Your task to perform on an android device: open a bookmark in the chrome app Image 0: 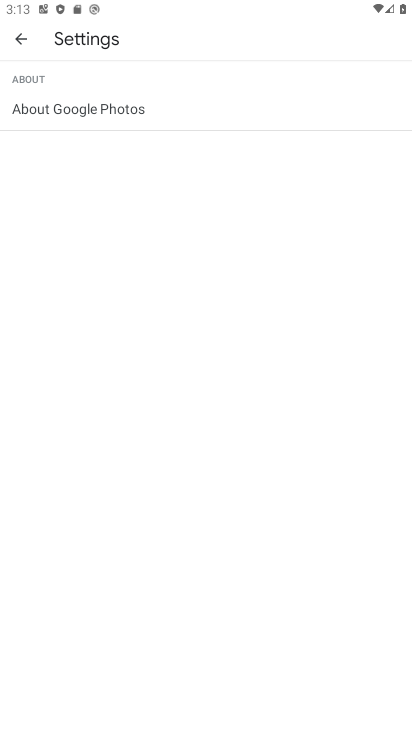
Step 0: drag from (255, 622) to (276, 213)
Your task to perform on an android device: open a bookmark in the chrome app Image 1: 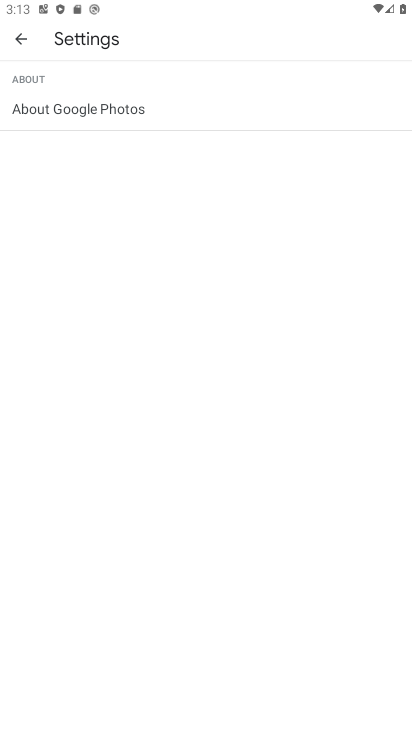
Step 1: press home button
Your task to perform on an android device: open a bookmark in the chrome app Image 2: 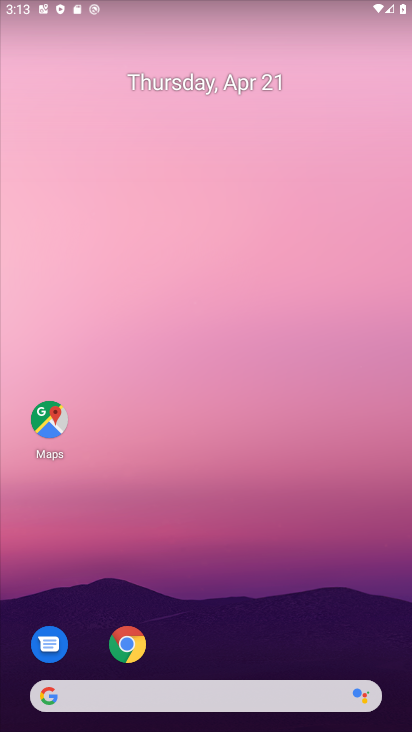
Step 2: click (105, 626)
Your task to perform on an android device: open a bookmark in the chrome app Image 3: 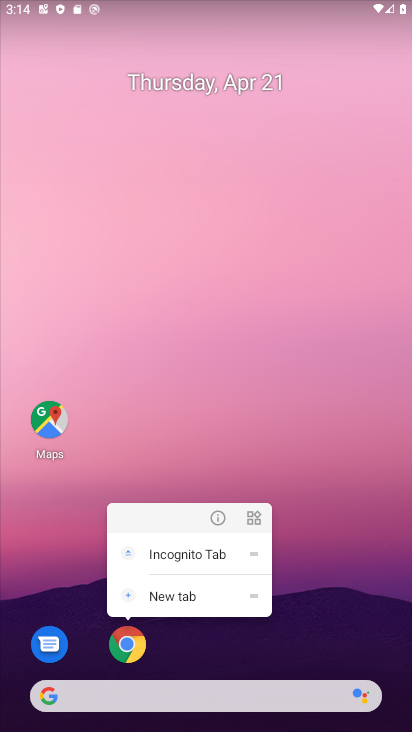
Step 3: click (130, 653)
Your task to perform on an android device: open a bookmark in the chrome app Image 4: 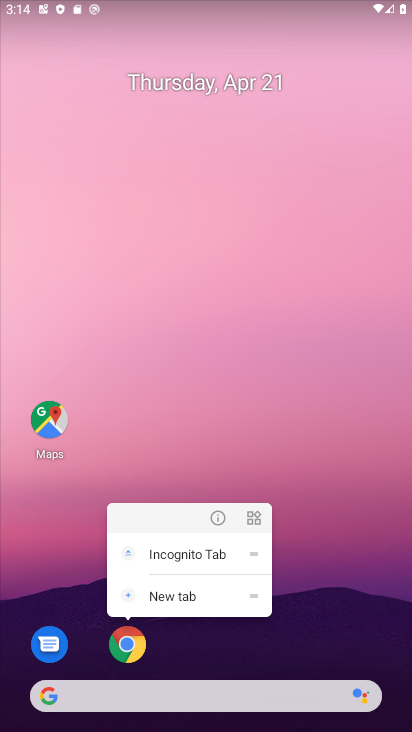
Step 4: click (130, 653)
Your task to perform on an android device: open a bookmark in the chrome app Image 5: 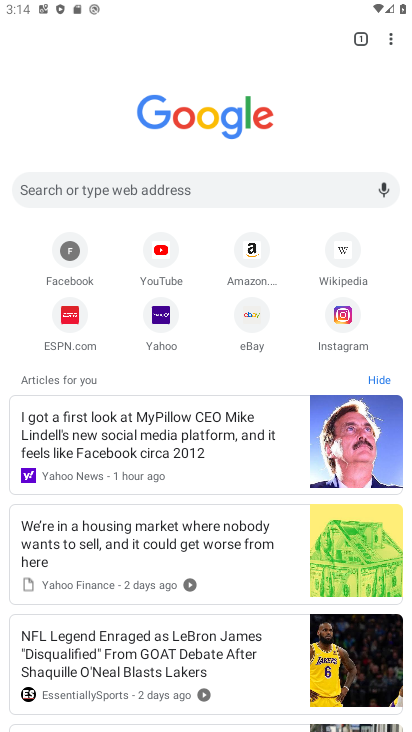
Step 5: click (392, 40)
Your task to perform on an android device: open a bookmark in the chrome app Image 6: 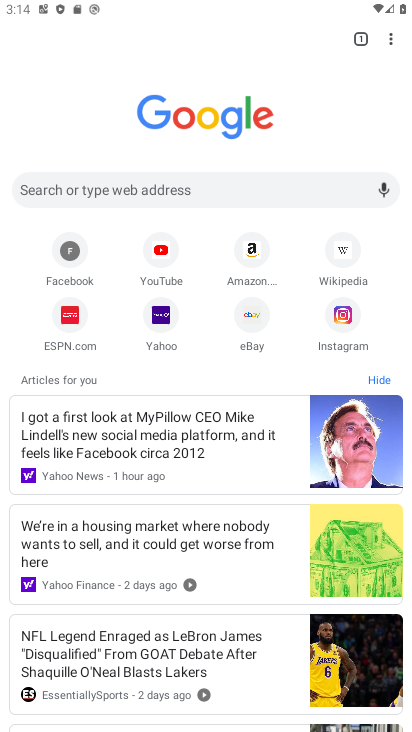
Step 6: click (393, 44)
Your task to perform on an android device: open a bookmark in the chrome app Image 7: 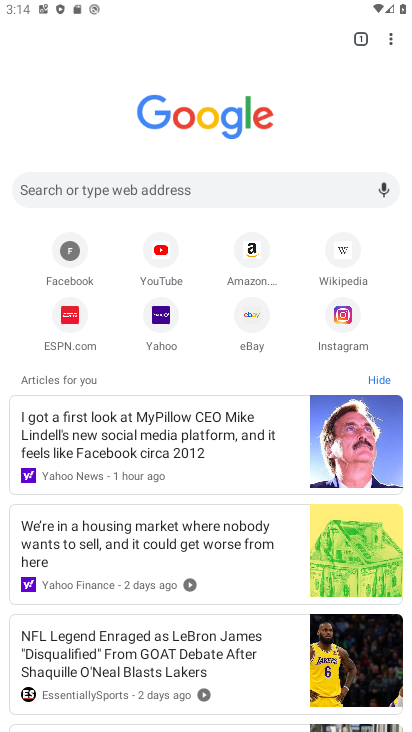
Step 7: click (390, 26)
Your task to perform on an android device: open a bookmark in the chrome app Image 8: 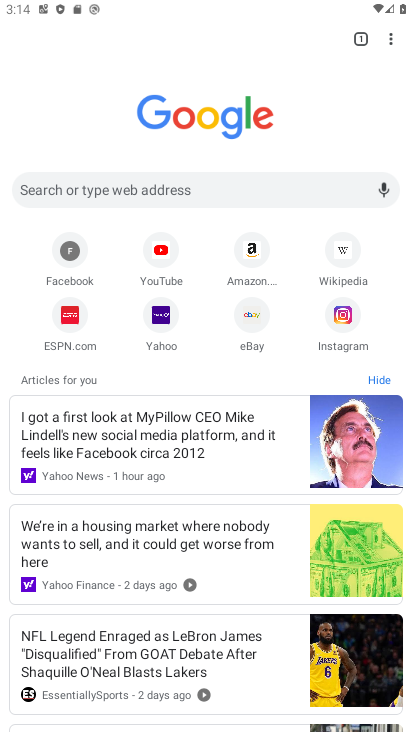
Step 8: click (393, 38)
Your task to perform on an android device: open a bookmark in the chrome app Image 9: 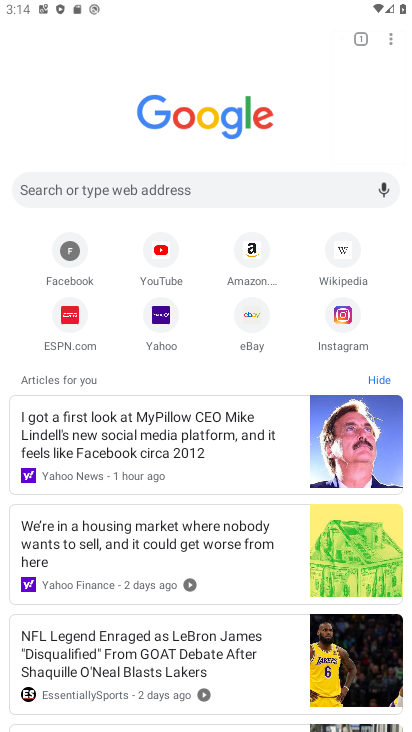
Step 9: click (69, 60)
Your task to perform on an android device: open a bookmark in the chrome app Image 10: 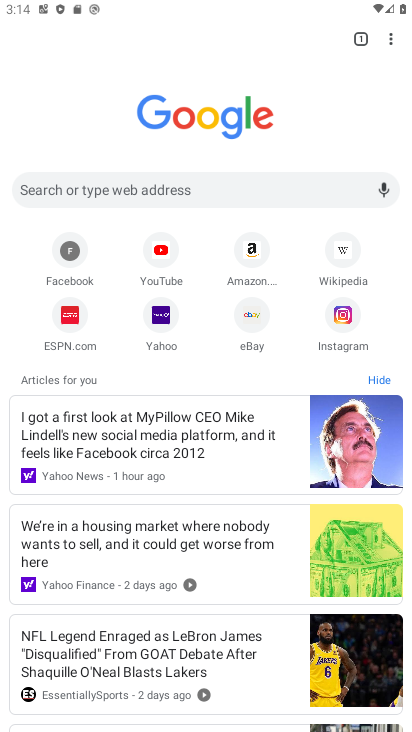
Step 10: click (393, 31)
Your task to perform on an android device: open a bookmark in the chrome app Image 11: 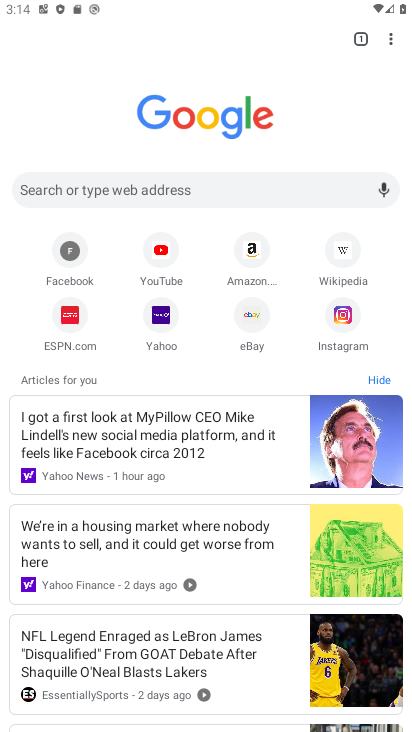
Step 11: click (386, 40)
Your task to perform on an android device: open a bookmark in the chrome app Image 12: 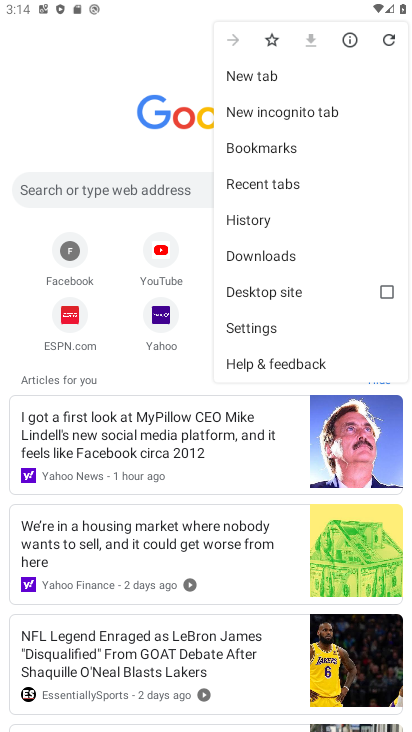
Step 12: click (242, 149)
Your task to perform on an android device: open a bookmark in the chrome app Image 13: 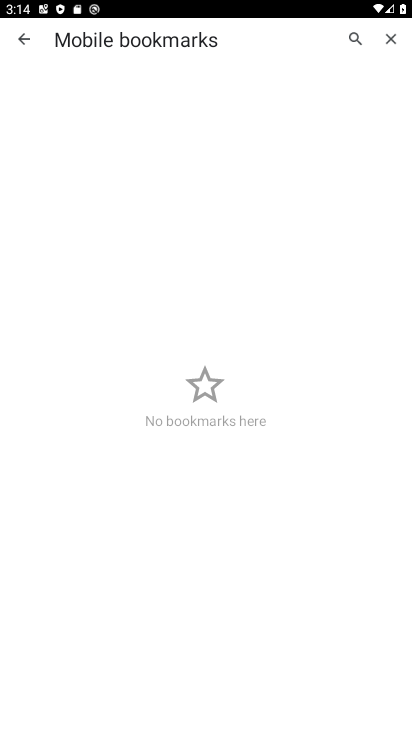
Step 13: task complete